Your task to perform on an android device: toggle improve location accuracy Image 0: 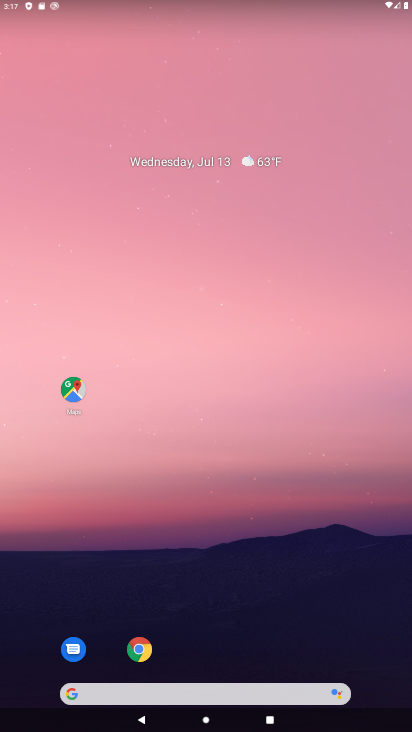
Step 0: drag from (267, 613) to (272, 191)
Your task to perform on an android device: toggle improve location accuracy Image 1: 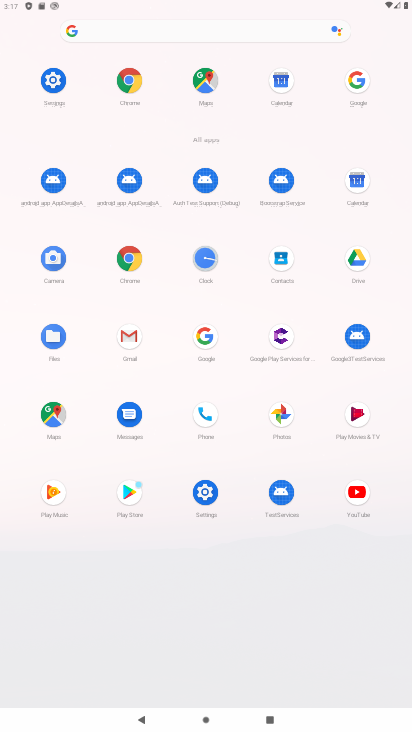
Step 1: click (53, 82)
Your task to perform on an android device: toggle improve location accuracy Image 2: 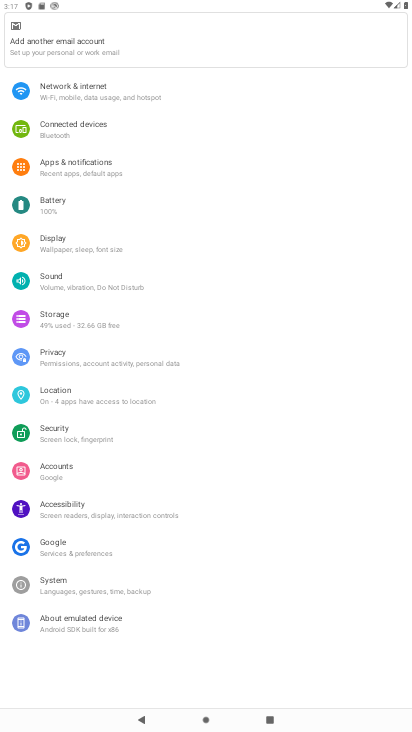
Step 2: click (68, 387)
Your task to perform on an android device: toggle improve location accuracy Image 3: 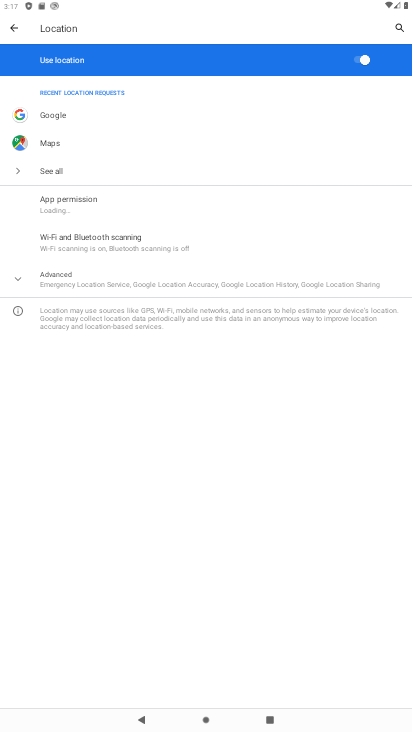
Step 3: click (162, 279)
Your task to perform on an android device: toggle improve location accuracy Image 4: 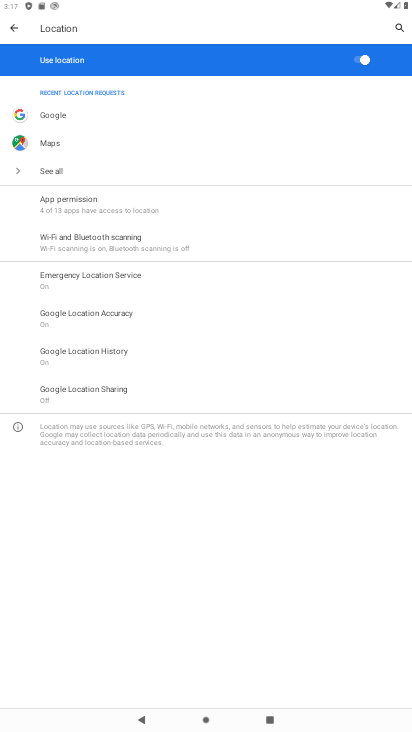
Step 4: click (157, 318)
Your task to perform on an android device: toggle improve location accuracy Image 5: 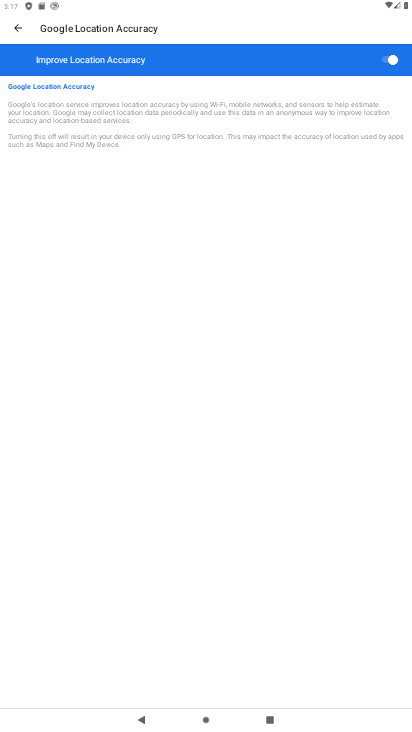
Step 5: click (355, 32)
Your task to perform on an android device: toggle improve location accuracy Image 6: 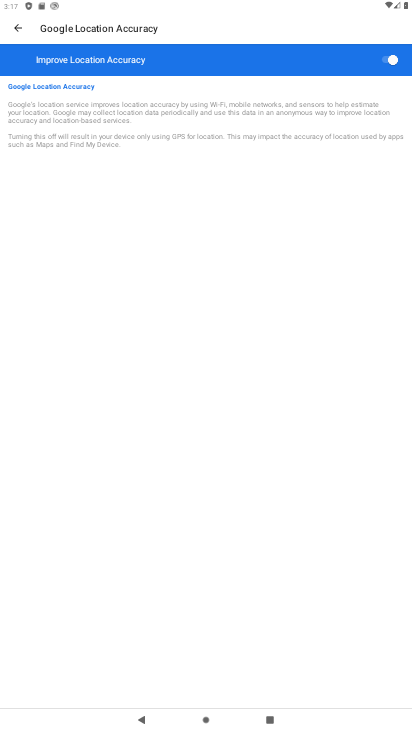
Step 6: click (361, 45)
Your task to perform on an android device: toggle improve location accuracy Image 7: 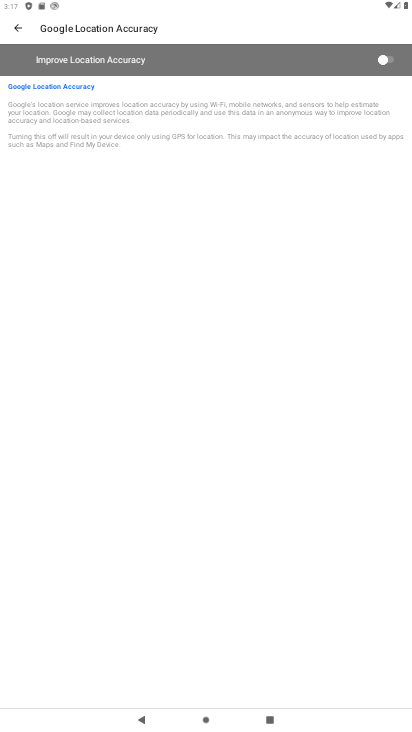
Step 7: task complete